Your task to perform on an android device: Open battery settings Image 0: 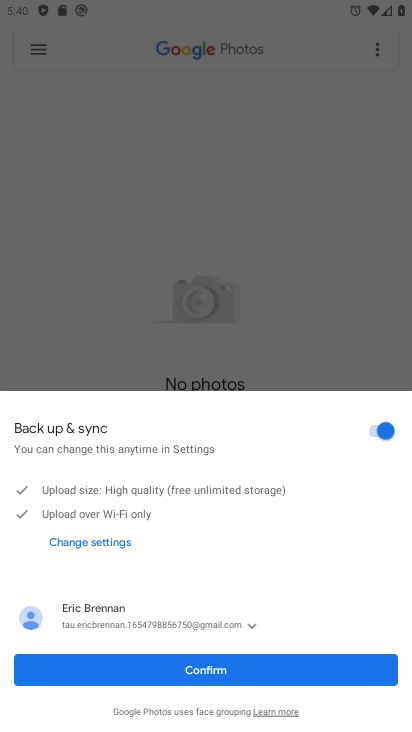
Step 0: drag from (167, 402) to (131, 704)
Your task to perform on an android device: Open battery settings Image 1: 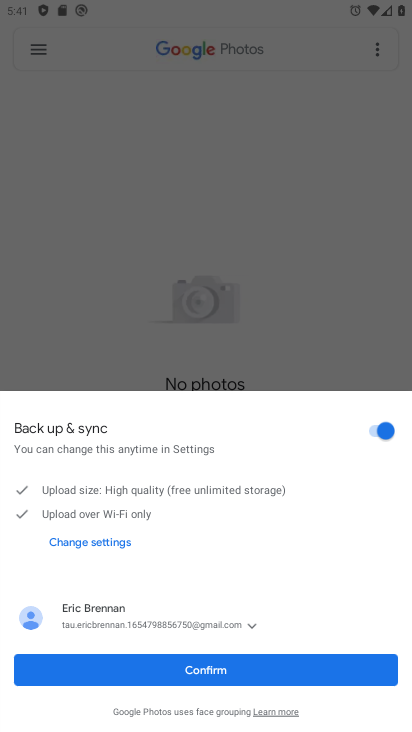
Step 1: drag from (241, 11) to (291, 516)
Your task to perform on an android device: Open battery settings Image 2: 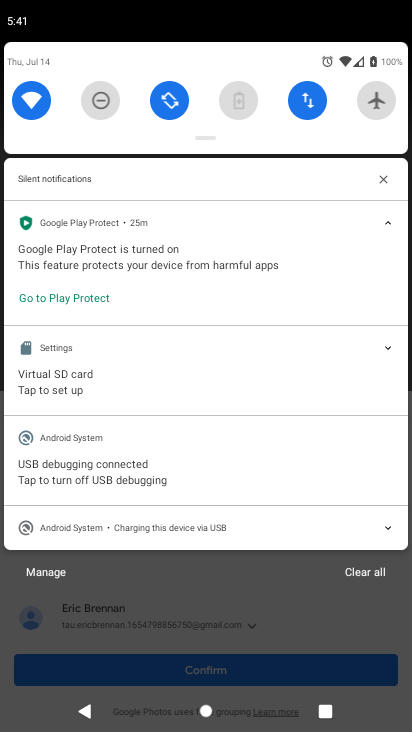
Step 2: click (234, 93)
Your task to perform on an android device: Open battery settings Image 3: 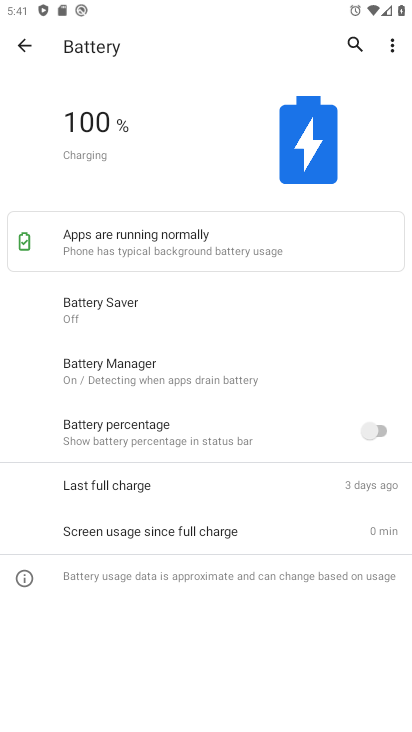
Step 3: task complete